Your task to perform on an android device: Go to location settings Image 0: 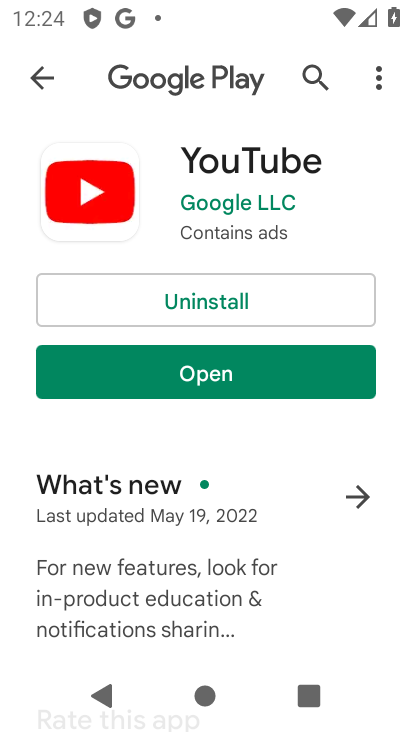
Step 0: press home button
Your task to perform on an android device: Go to location settings Image 1: 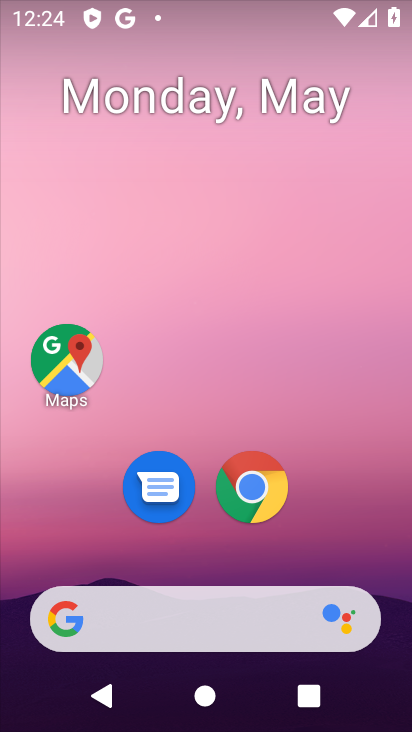
Step 1: drag from (330, 534) to (221, 114)
Your task to perform on an android device: Go to location settings Image 2: 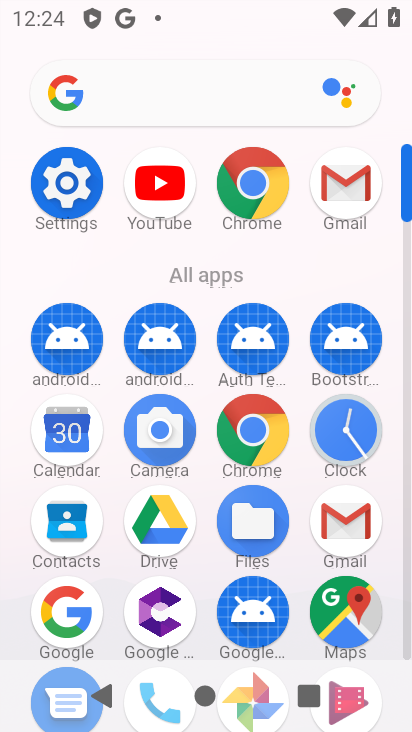
Step 2: click (68, 183)
Your task to perform on an android device: Go to location settings Image 3: 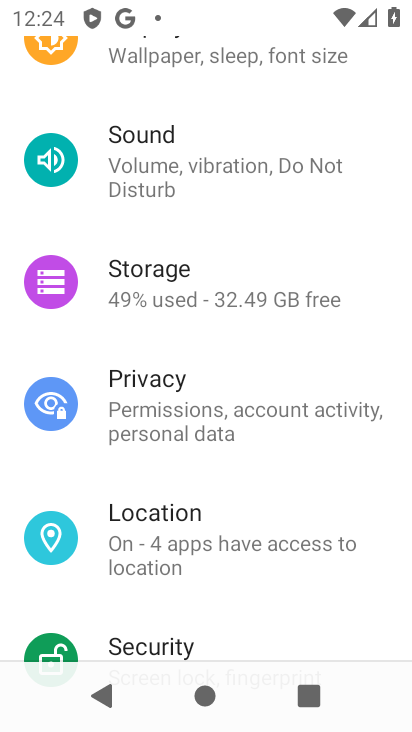
Step 3: click (170, 561)
Your task to perform on an android device: Go to location settings Image 4: 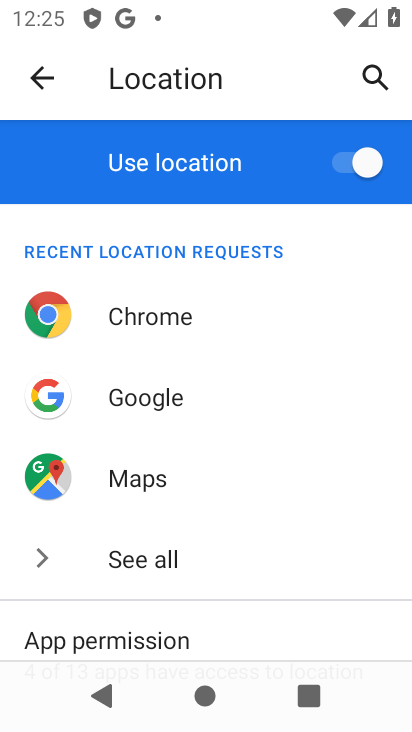
Step 4: task complete